Your task to perform on an android device: add a contact Image 0: 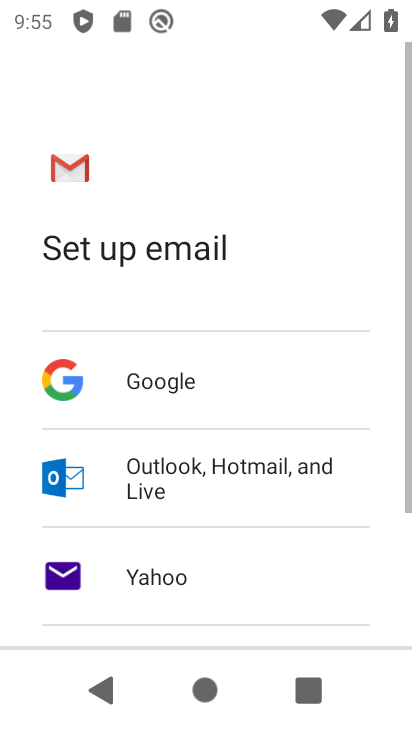
Step 0: press home button
Your task to perform on an android device: add a contact Image 1: 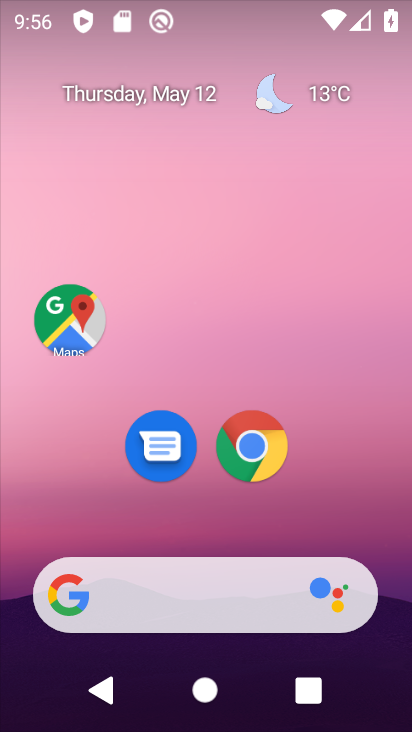
Step 1: drag from (216, 471) to (289, 85)
Your task to perform on an android device: add a contact Image 2: 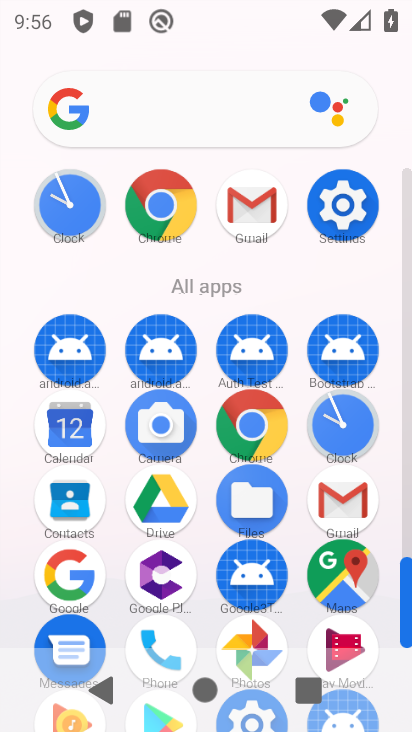
Step 2: drag from (287, 530) to (317, 215)
Your task to perform on an android device: add a contact Image 3: 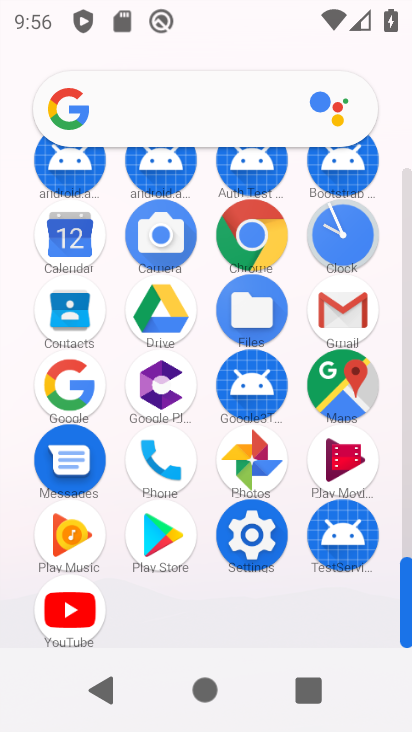
Step 3: click (84, 300)
Your task to perform on an android device: add a contact Image 4: 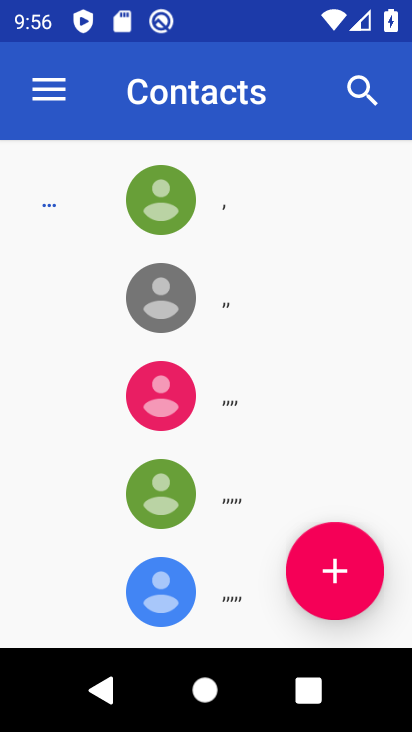
Step 4: click (316, 550)
Your task to perform on an android device: add a contact Image 5: 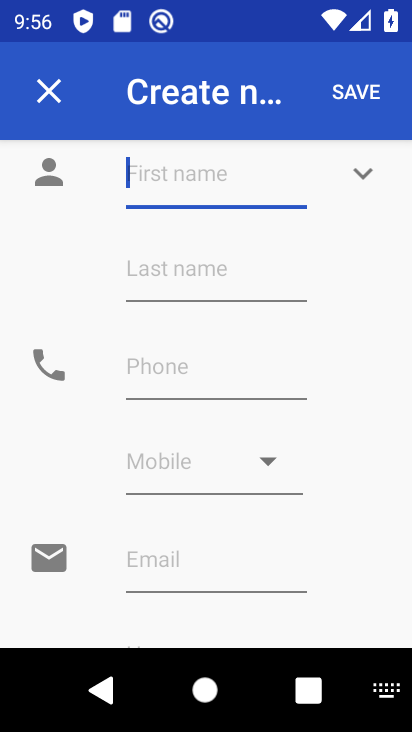
Step 5: type "njioiuhg"
Your task to perform on an android device: add a contact Image 6: 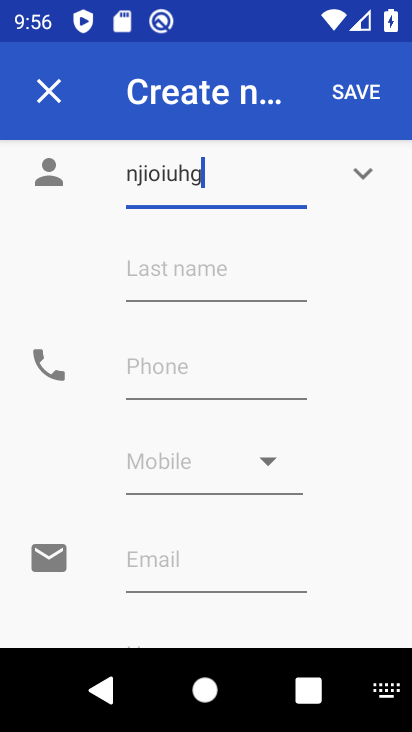
Step 6: click (232, 389)
Your task to perform on an android device: add a contact Image 7: 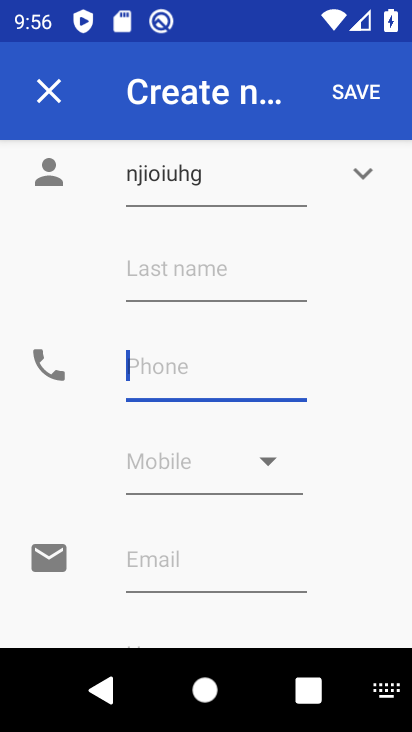
Step 7: type "3245"
Your task to perform on an android device: add a contact Image 8: 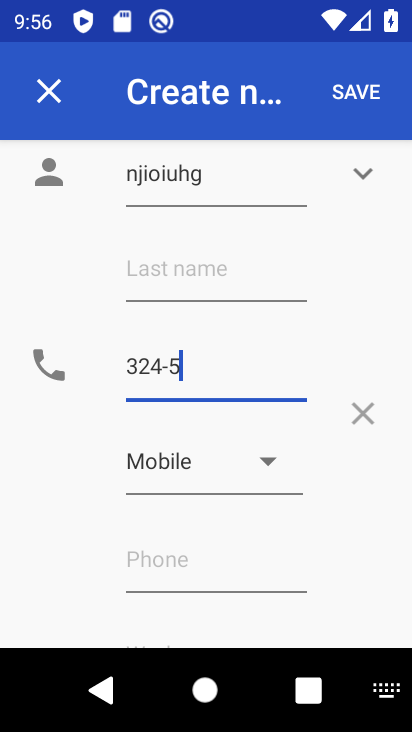
Step 8: click (365, 98)
Your task to perform on an android device: add a contact Image 9: 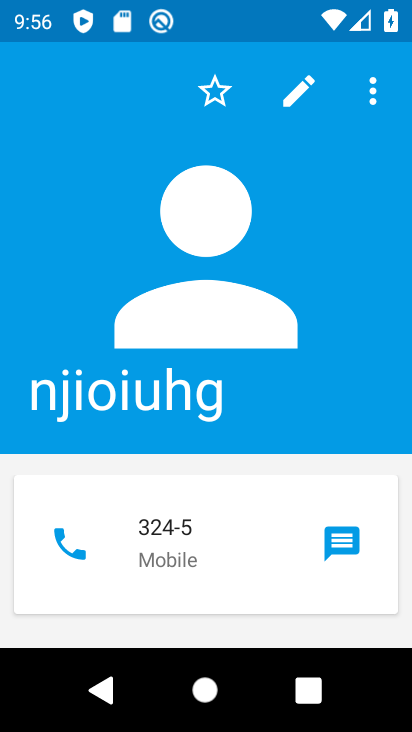
Step 9: task complete